Your task to perform on an android device: Search for the best way to get rid of a cold Image 0: 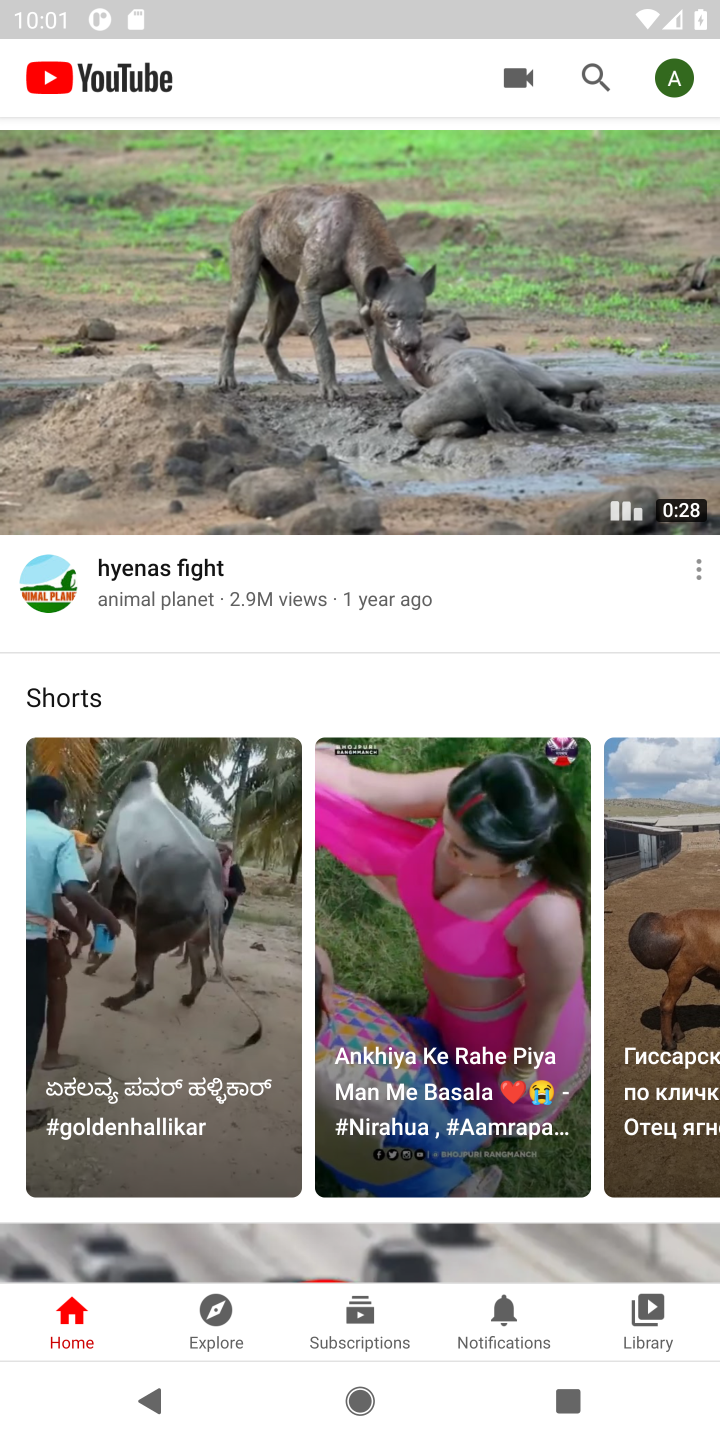
Step 0: press home button
Your task to perform on an android device: Search for the best way to get rid of a cold Image 1: 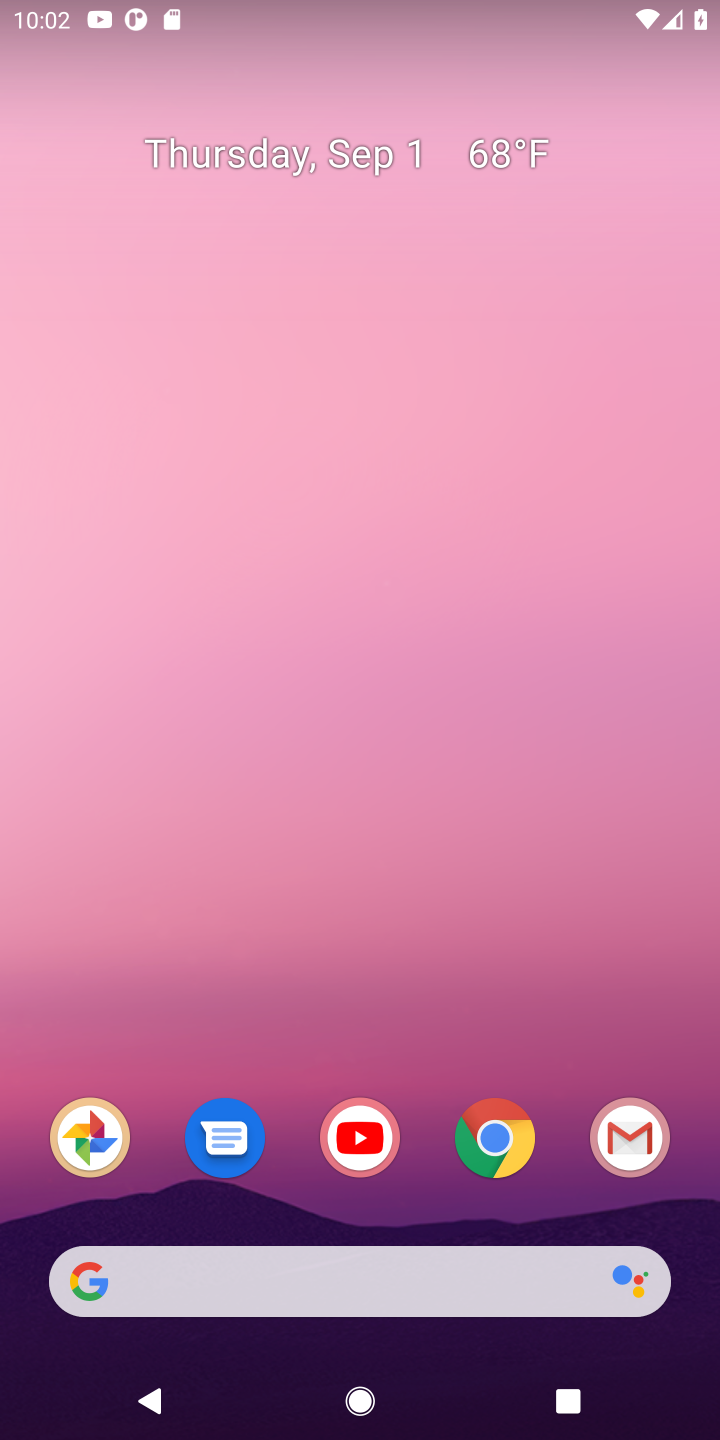
Step 1: click (435, 1278)
Your task to perform on an android device: Search for the best way to get rid of a cold Image 2: 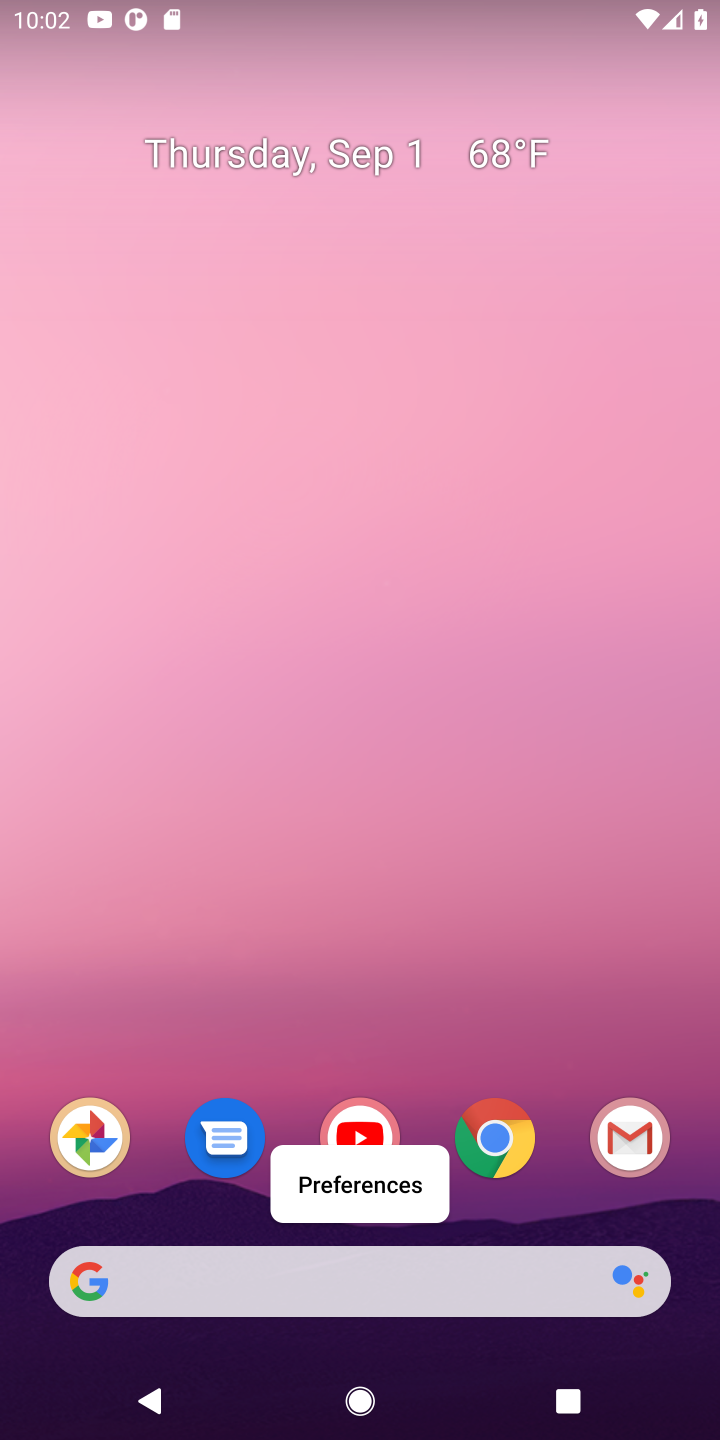
Step 2: click (286, 1273)
Your task to perform on an android device: Search for the best way to get rid of a cold Image 3: 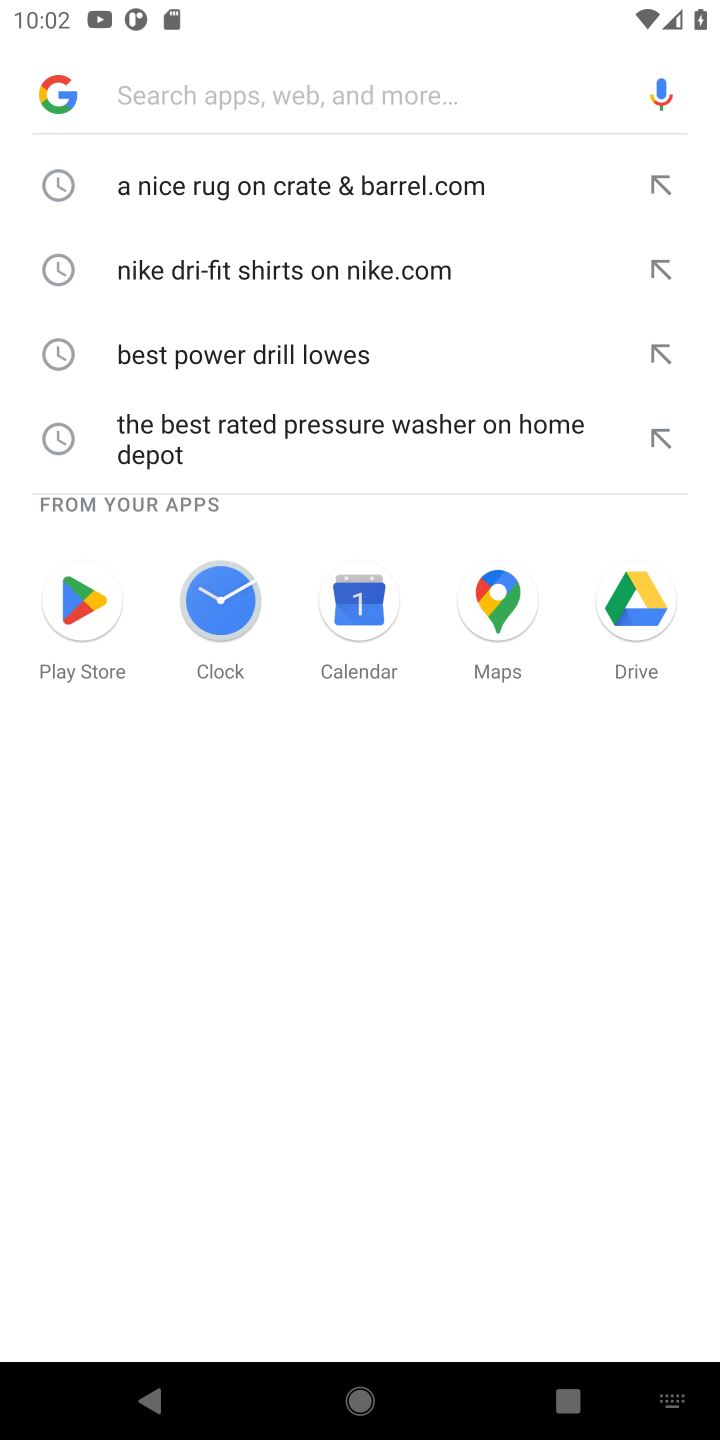
Step 3: type " the best way to get rid of a cold"
Your task to perform on an android device: Search for the best way to get rid of a cold Image 4: 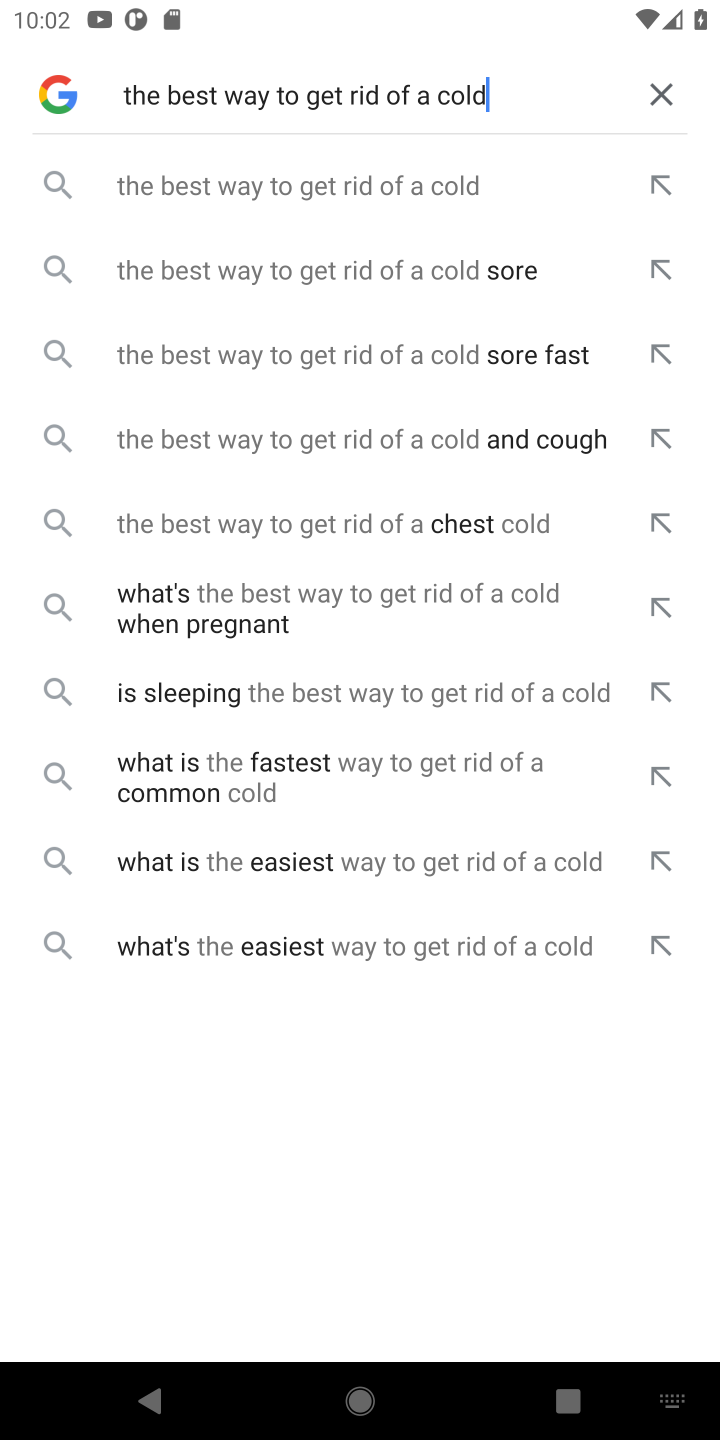
Step 4: click (442, 183)
Your task to perform on an android device: Search for the best way to get rid of a cold Image 5: 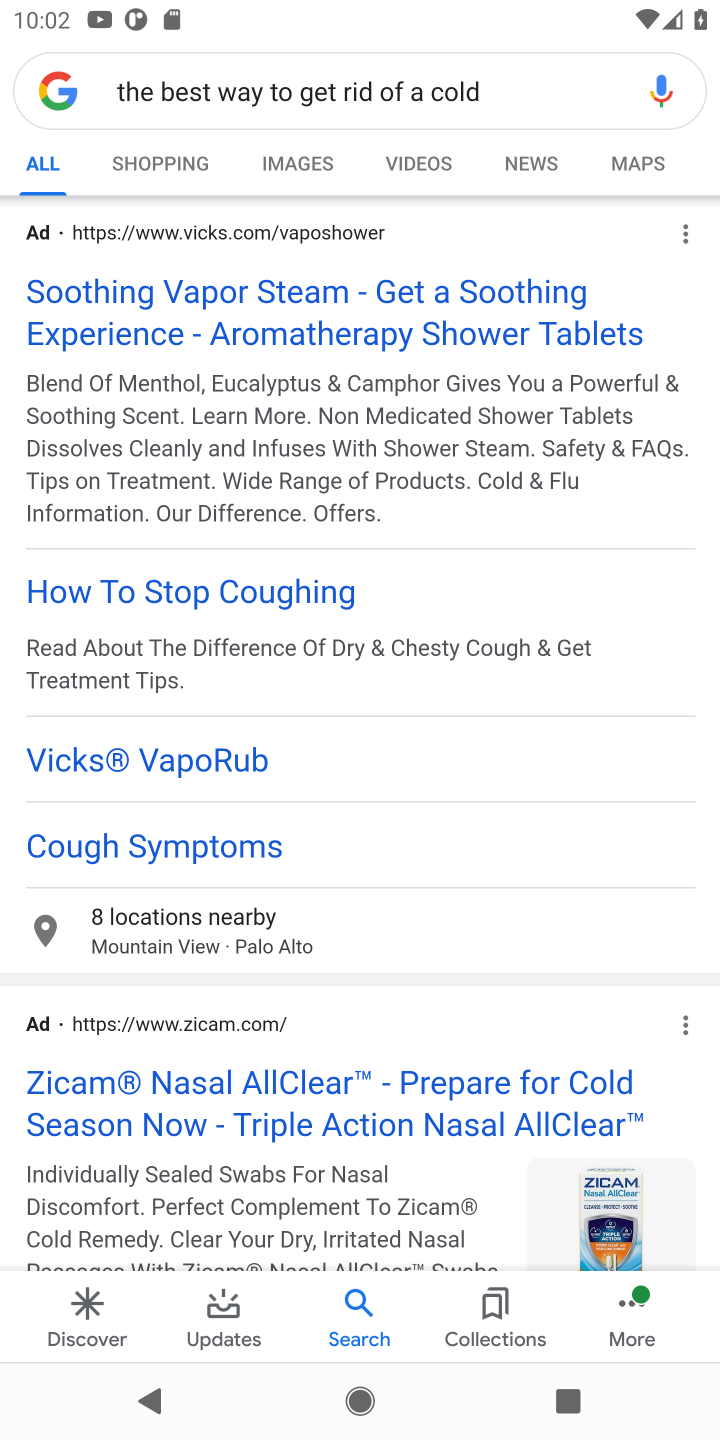
Step 5: drag from (237, 991) to (408, 145)
Your task to perform on an android device: Search for the best way to get rid of a cold Image 6: 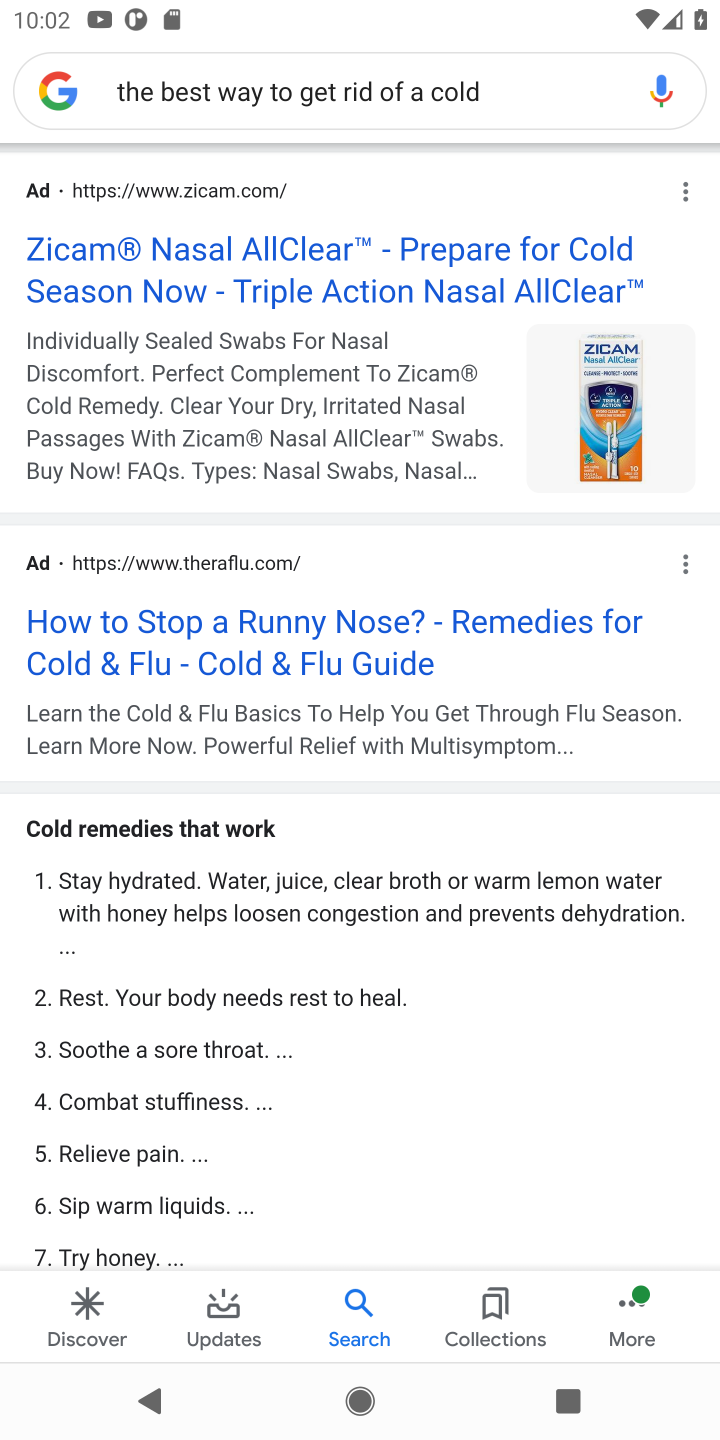
Step 6: drag from (421, 872) to (439, 451)
Your task to perform on an android device: Search for the best way to get rid of a cold Image 7: 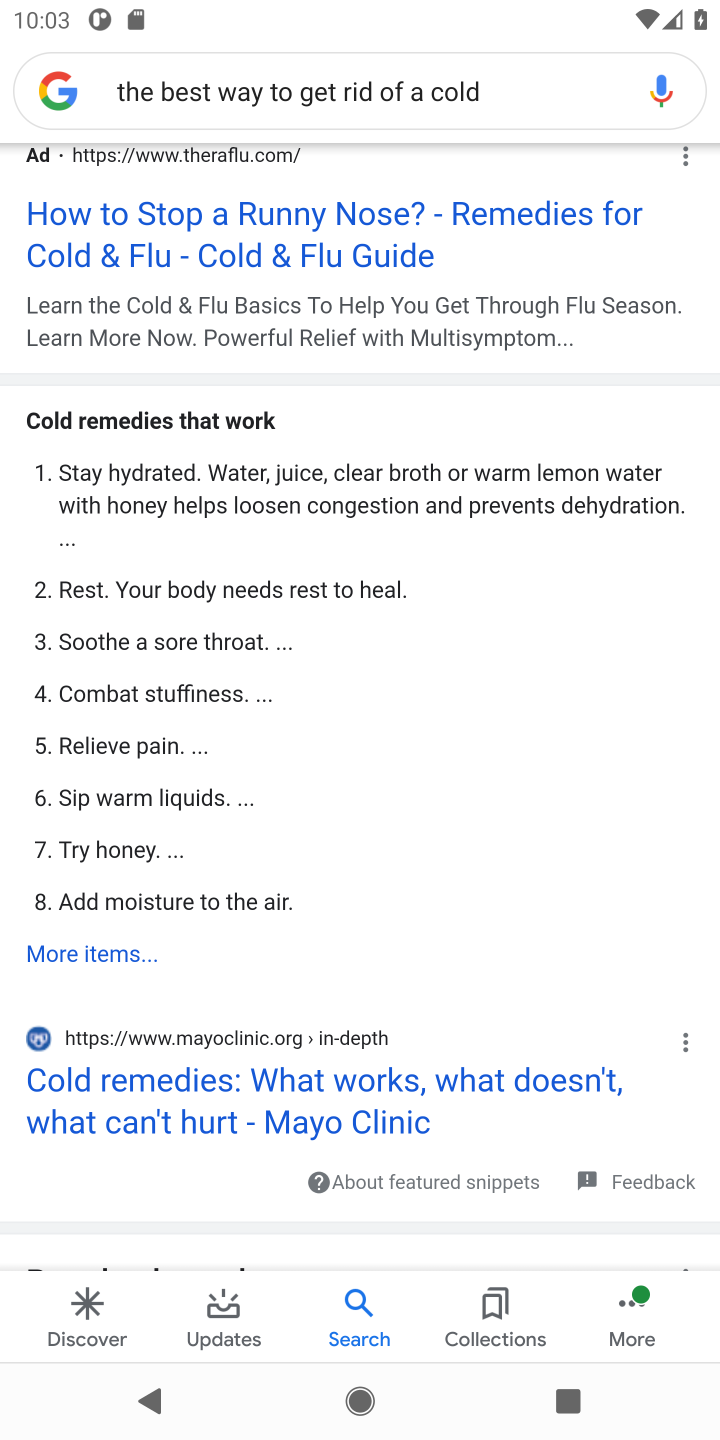
Step 7: drag from (399, 423) to (423, 314)
Your task to perform on an android device: Search for the best way to get rid of a cold Image 8: 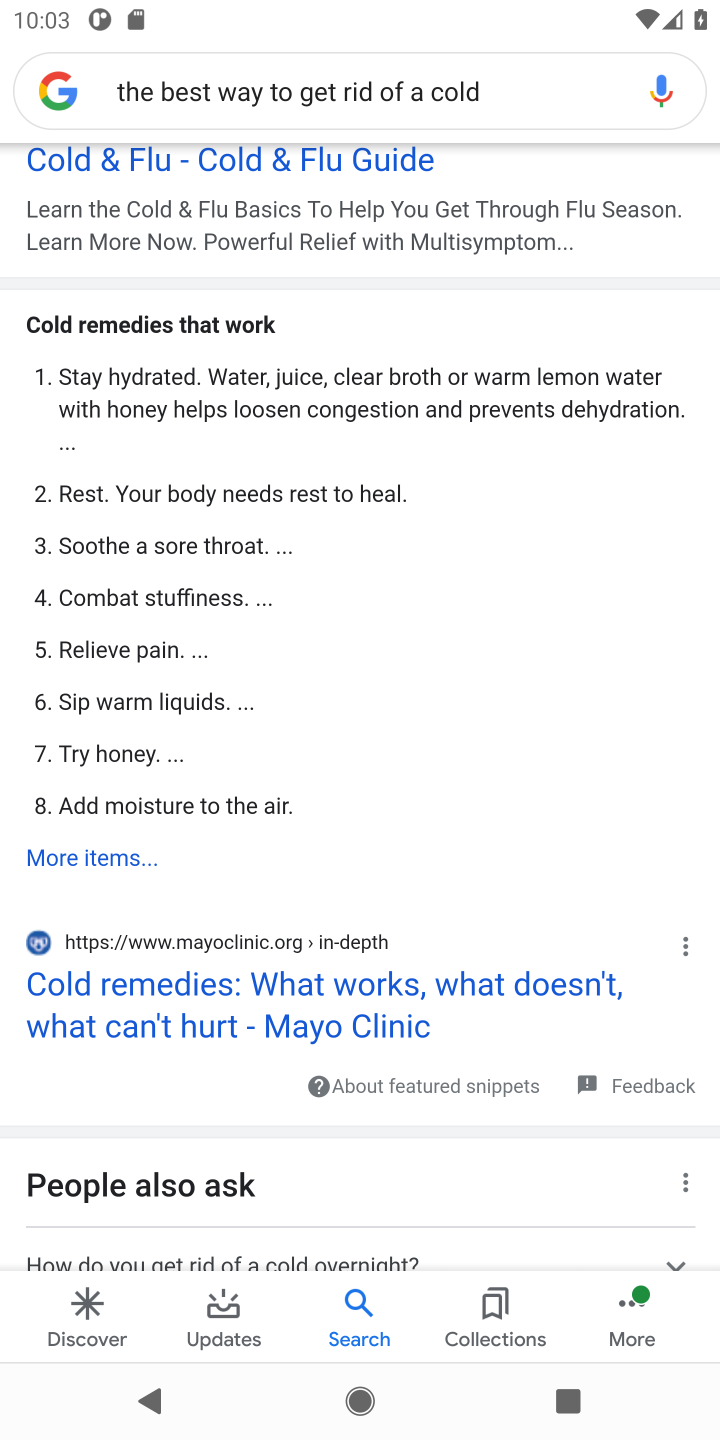
Step 8: click (332, 692)
Your task to perform on an android device: Search for the best way to get rid of a cold Image 9: 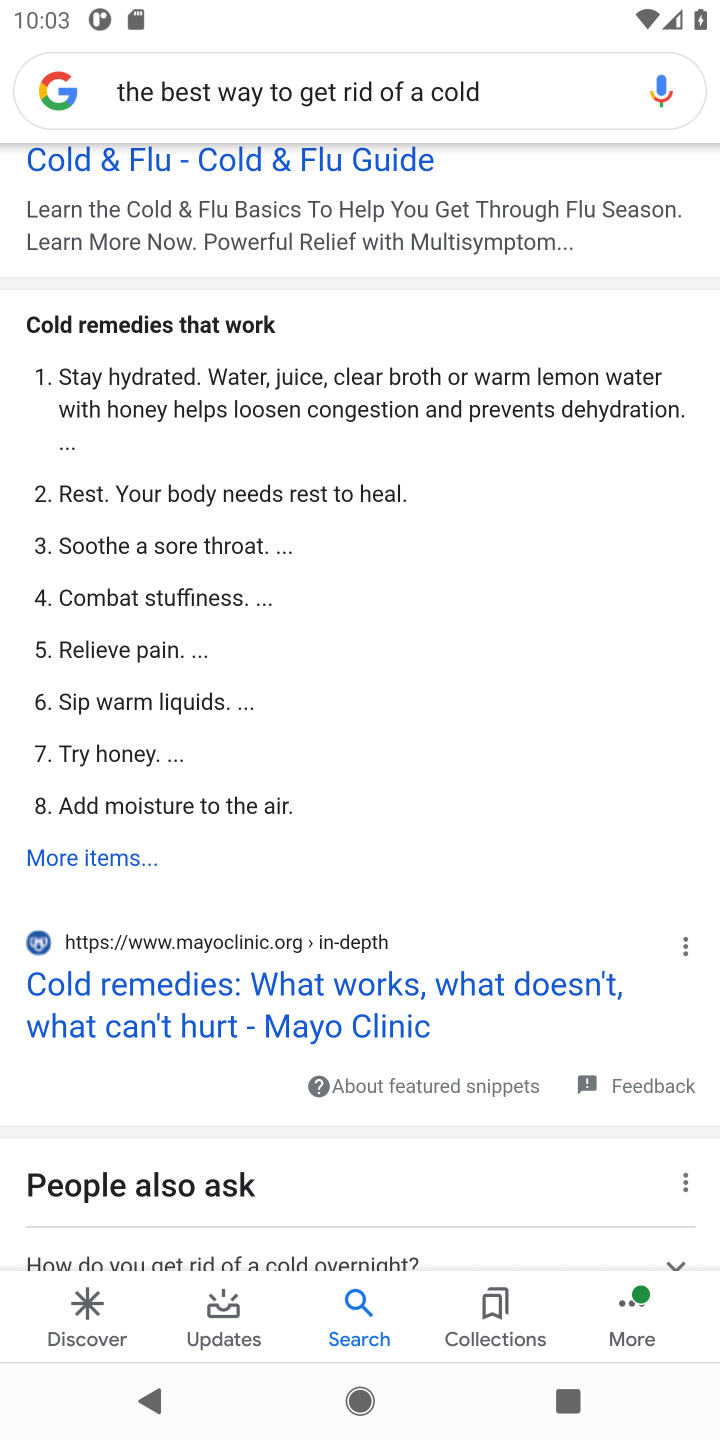
Step 9: task complete